Your task to perform on an android device: add a label to a message in the gmail app Image 0: 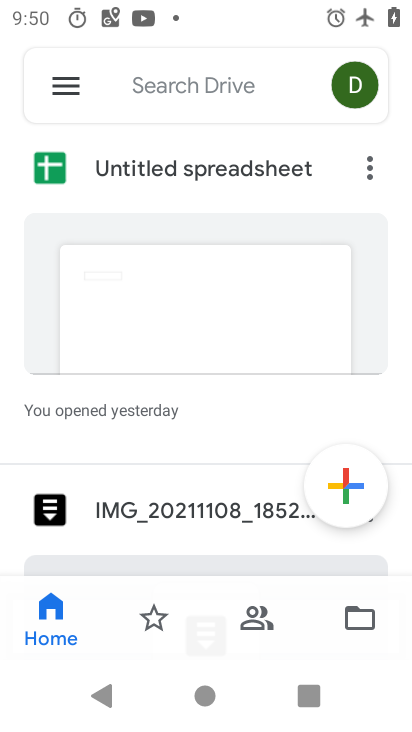
Step 0: press home button
Your task to perform on an android device: add a label to a message in the gmail app Image 1: 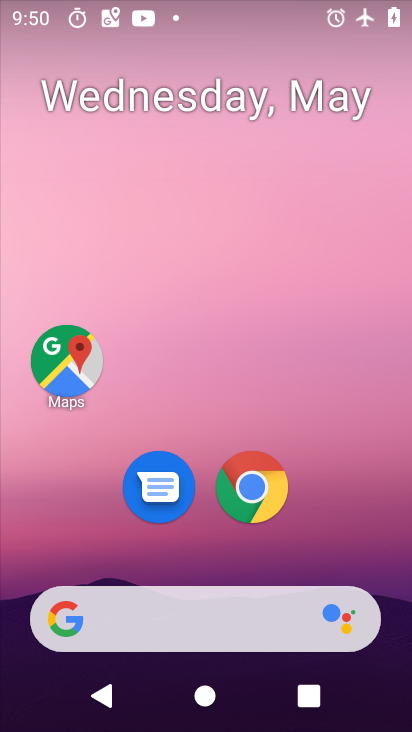
Step 1: drag from (230, 535) to (231, 170)
Your task to perform on an android device: add a label to a message in the gmail app Image 2: 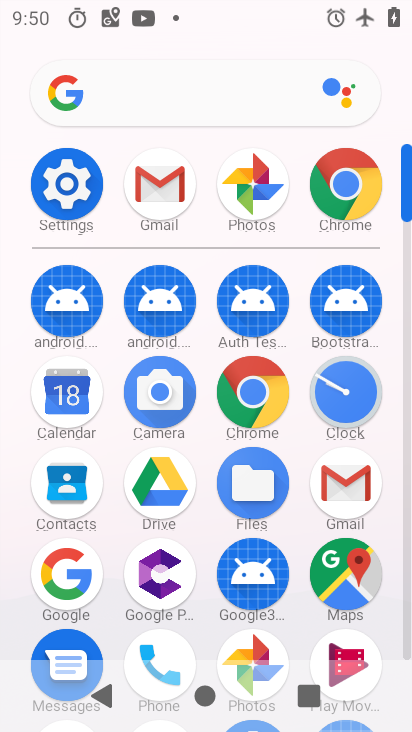
Step 2: click (347, 479)
Your task to perform on an android device: add a label to a message in the gmail app Image 3: 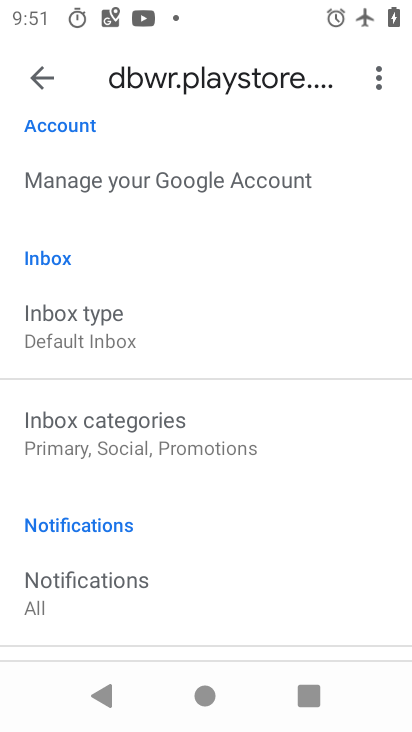
Step 3: press home button
Your task to perform on an android device: add a label to a message in the gmail app Image 4: 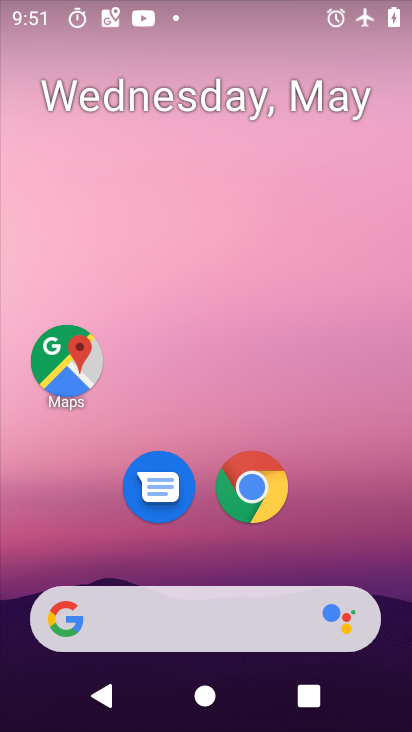
Step 4: drag from (172, 567) to (219, 234)
Your task to perform on an android device: add a label to a message in the gmail app Image 5: 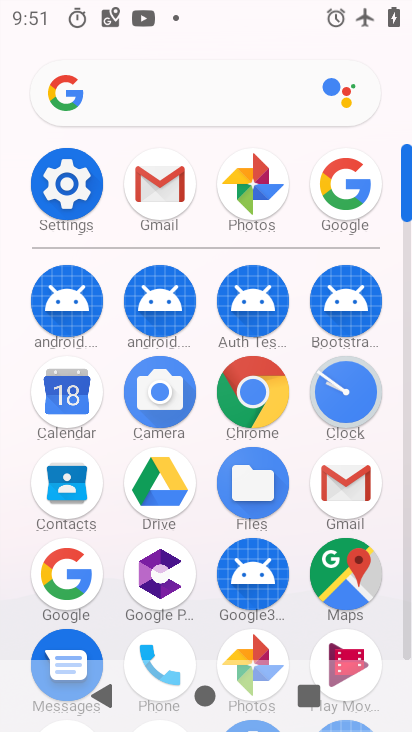
Step 5: click (322, 465)
Your task to perform on an android device: add a label to a message in the gmail app Image 6: 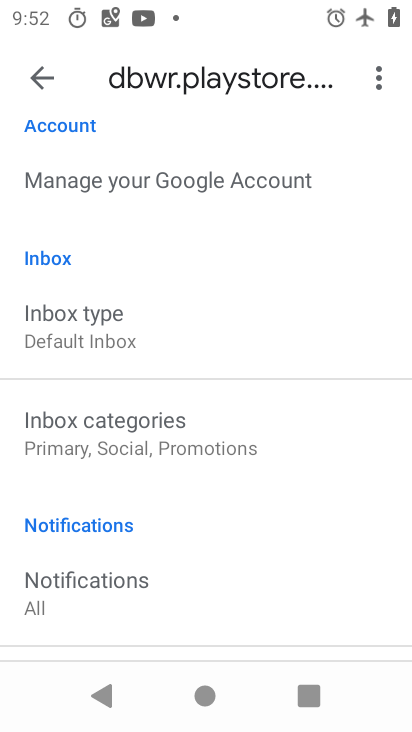
Step 6: click (39, 69)
Your task to perform on an android device: add a label to a message in the gmail app Image 7: 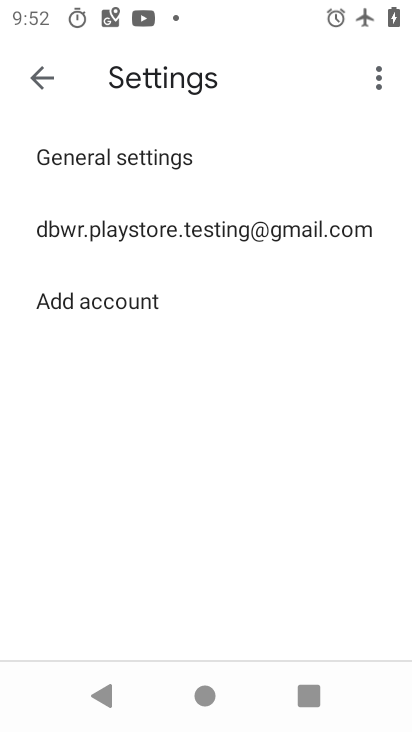
Step 7: click (35, 85)
Your task to perform on an android device: add a label to a message in the gmail app Image 8: 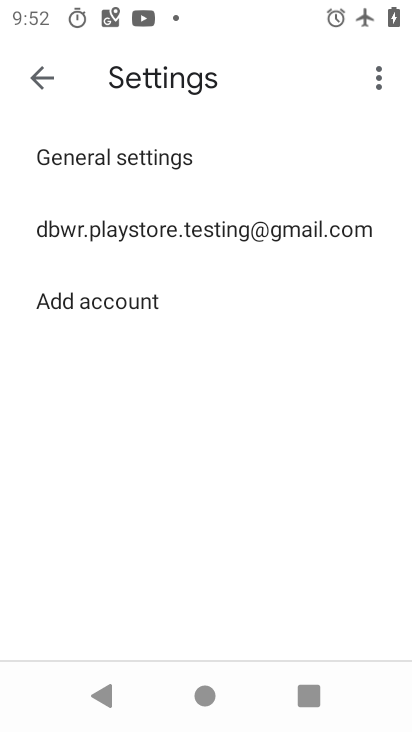
Step 8: click (50, 73)
Your task to perform on an android device: add a label to a message in the gmail app Image 9: 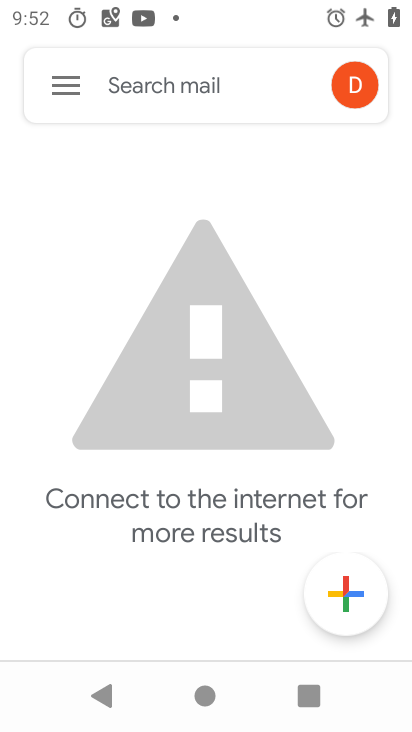
Step 9: task complete